Your task to perform on an android device: snooze an email in the gmail app Image 0: 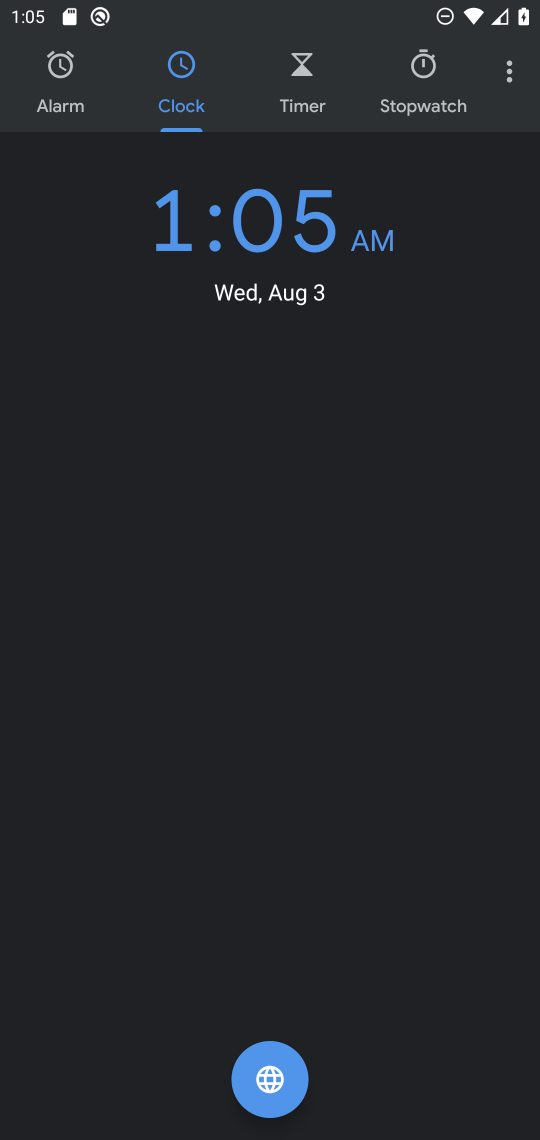
Step 0: press back button
Your task to perform on an android device: snooze an email in the gmail app Image 1: 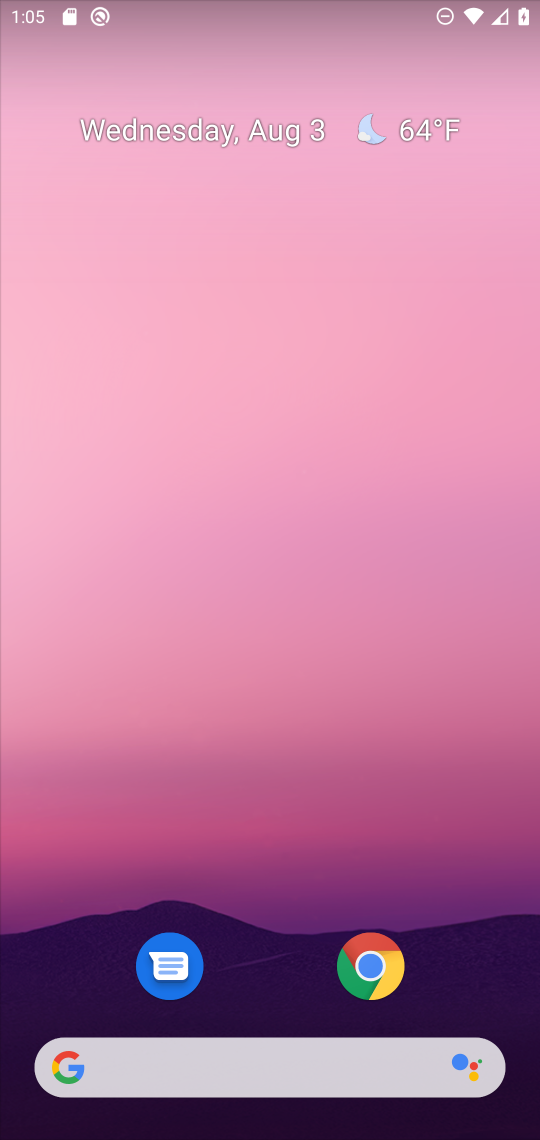
Step 1: drag from (303, 986) to (271, 267)
Your task to perform on an android device: snooze an email in the gmail app Image 2: 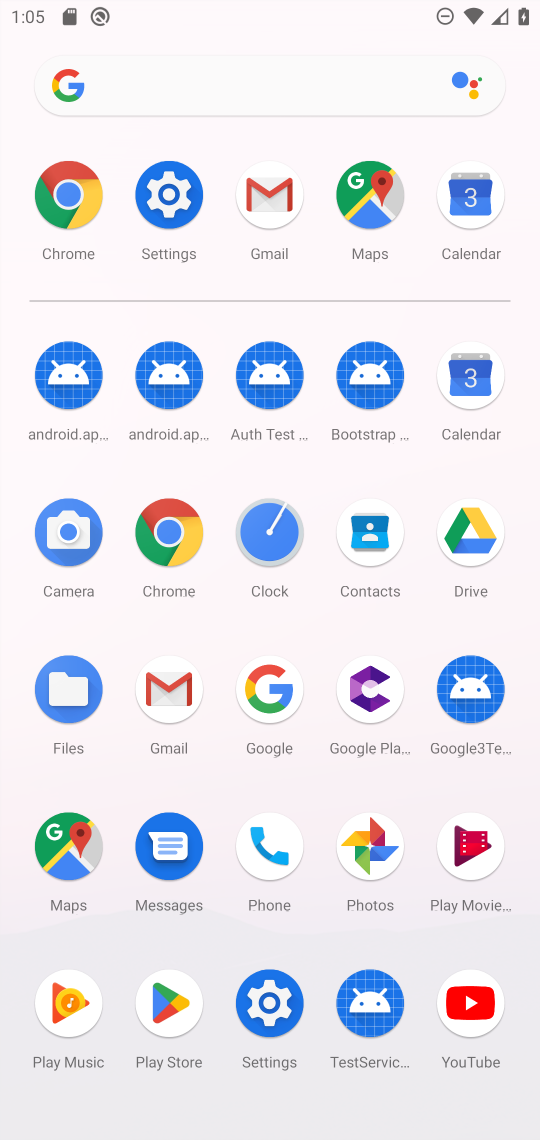
Step 2: click (269, 258)
Your task to perform on an android device: snooze an email in the gmail app Image 3: 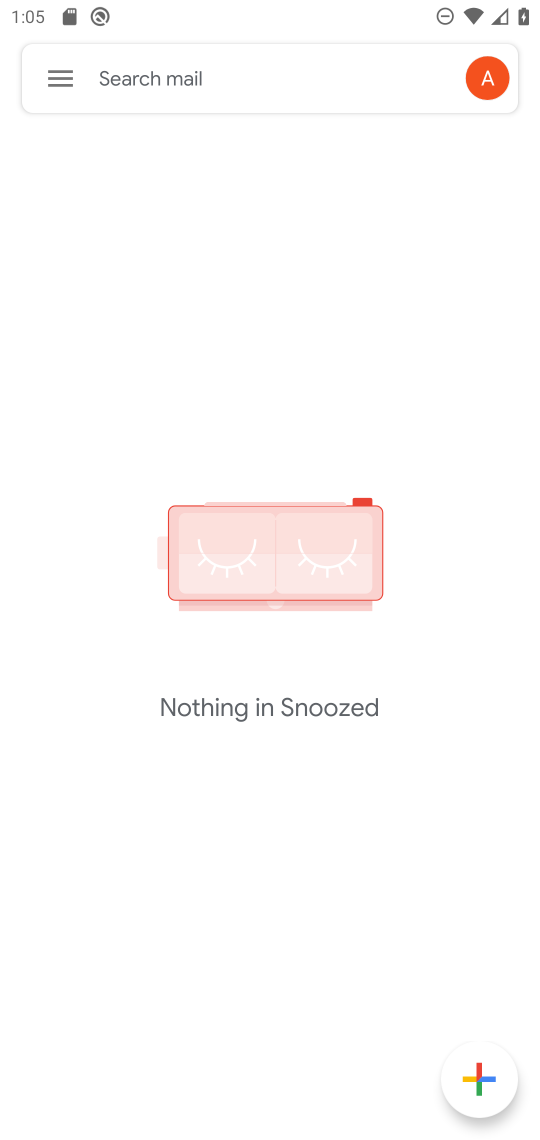
Step 3: click (65, 66)
Your task to perform on an android device: snooze an email in the gmail app Image 4: 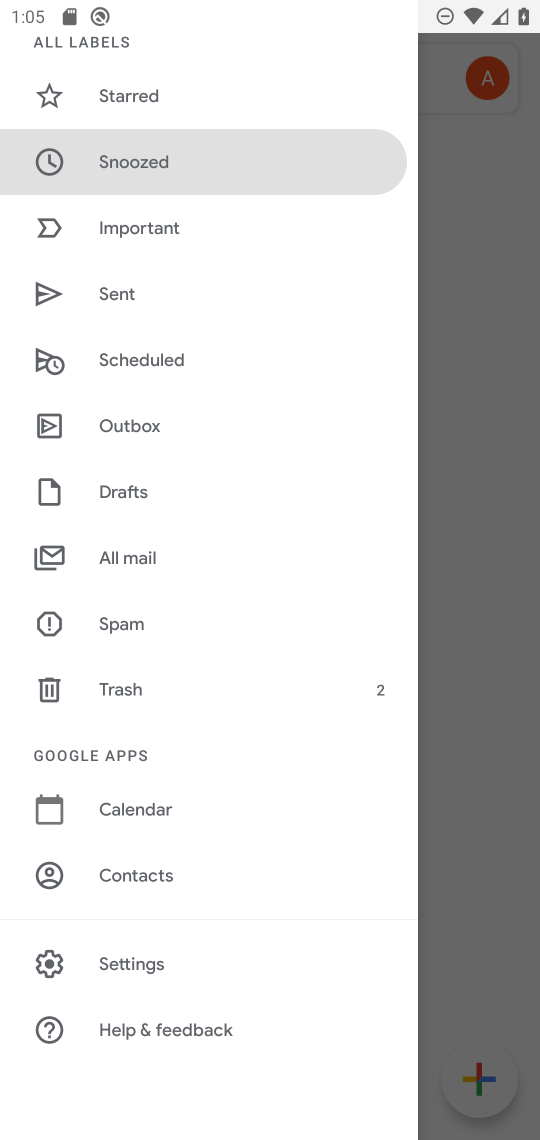
Step 4: drag from (195, 569) to (218, 421)
Your task to perform on an android device: snooze an email in the gmail app Image 5: 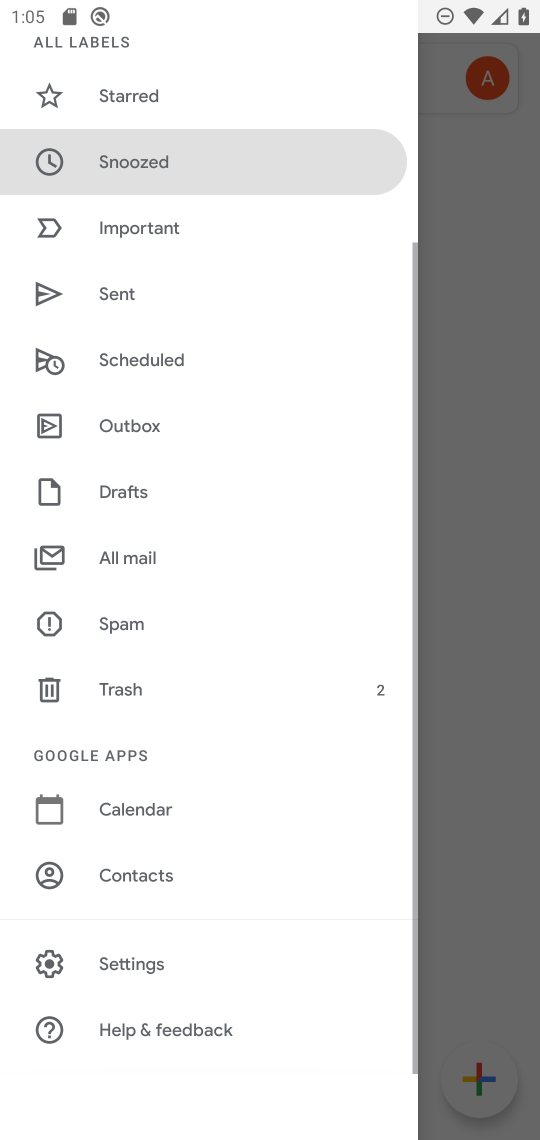
Step 5: click (169, 547)
Your task to perform on an android device: snooze an email in the gmail app Image 6: 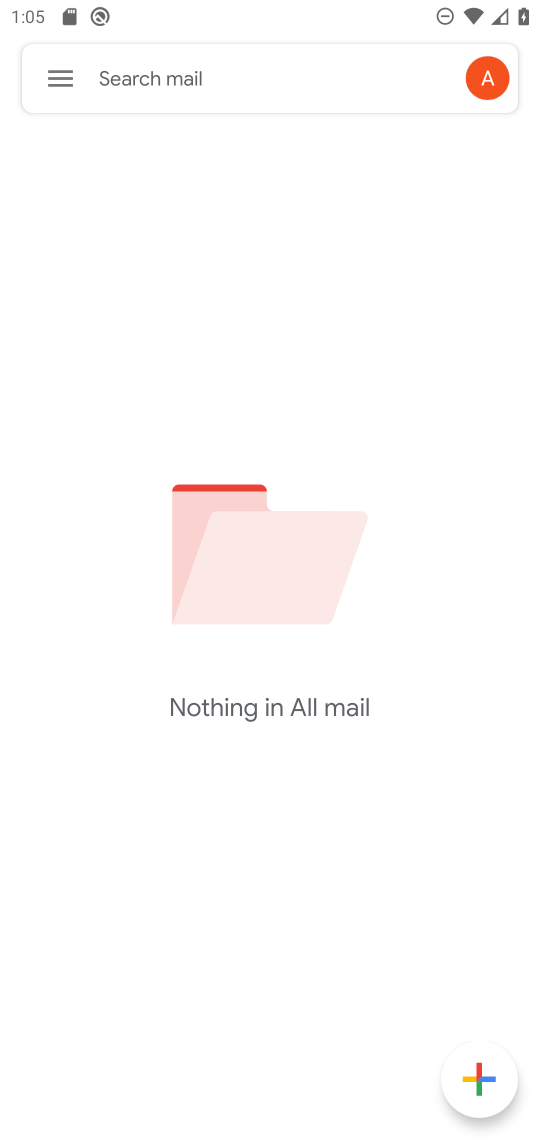
Step 6: task complete